Your task to perform on an android device: refresh tabs in the chrome app Image 0: 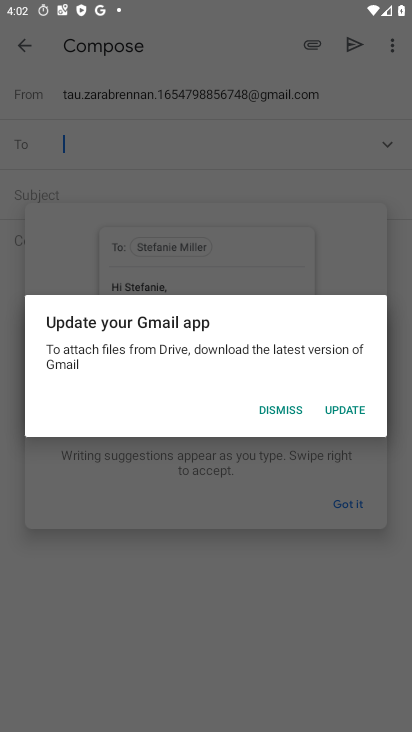
Step 0: press home button
Your task to perform on an android device: refresh tabs in the chrome app Image 1: 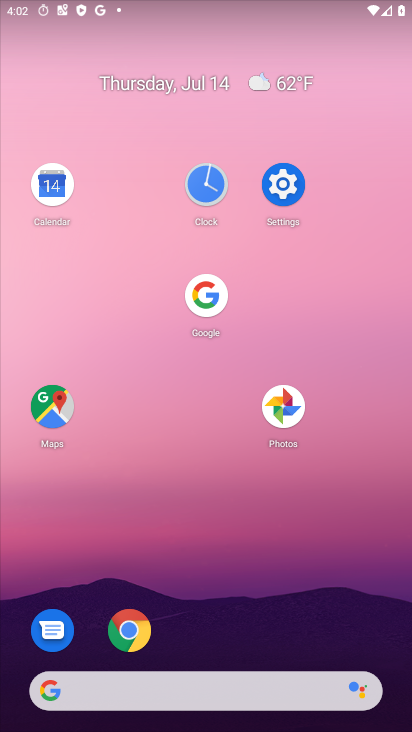
Step 1: click (144, 618)
Your task to perform on an android device: refresh tabs in the chrome app Image 2: 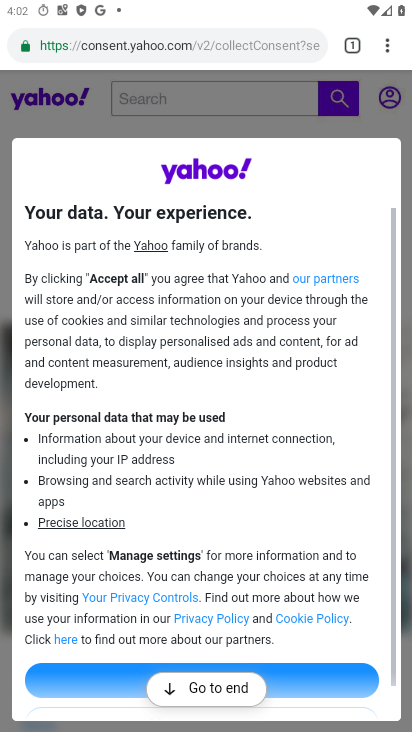
Step 2: click (386, 44)
Your task to perform on an android device: refresh tabs in the chrome app Image 3: 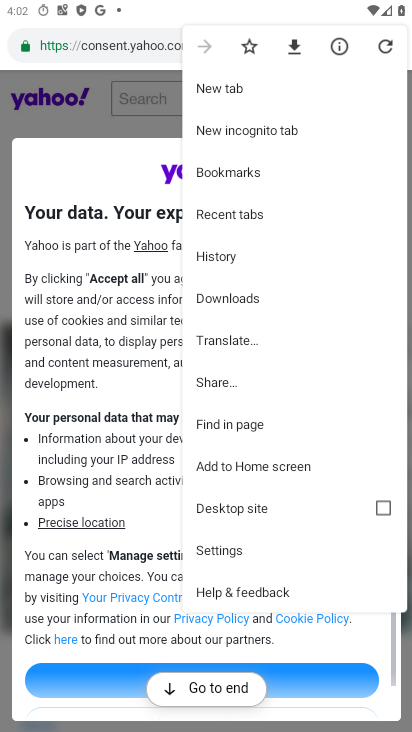
Step 3: click (385, 57)
Your task to perform on an android device: refresh tabs in the chrome app Image 4: 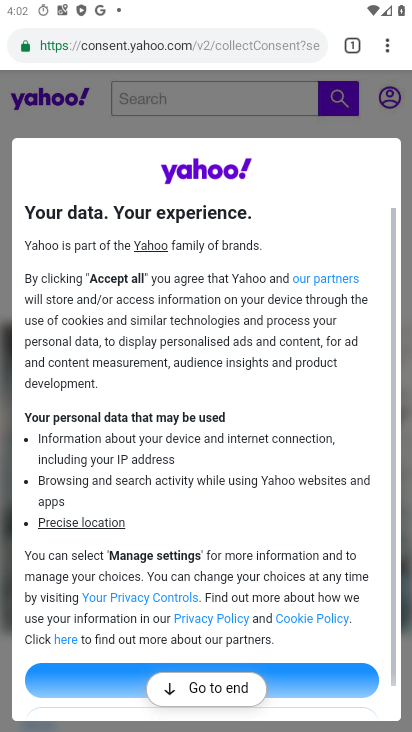
Step 4: task complete